Your task to perform on an android device: open wifi settings Image 0: 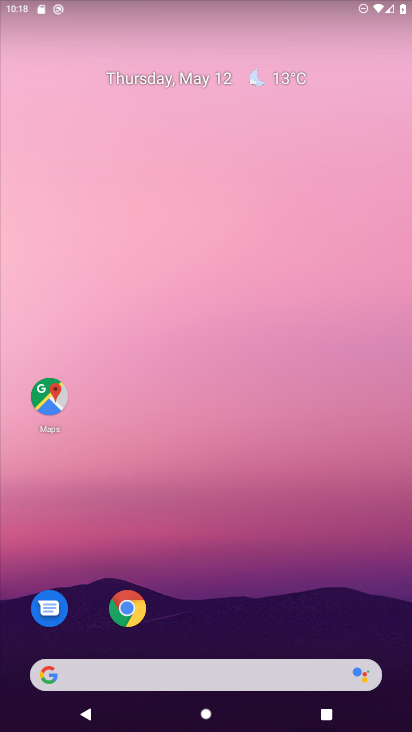
Step 0: drag from (219, 592) to (189, 87)
Your task to perform on an android device: open wifi settings Image 1: 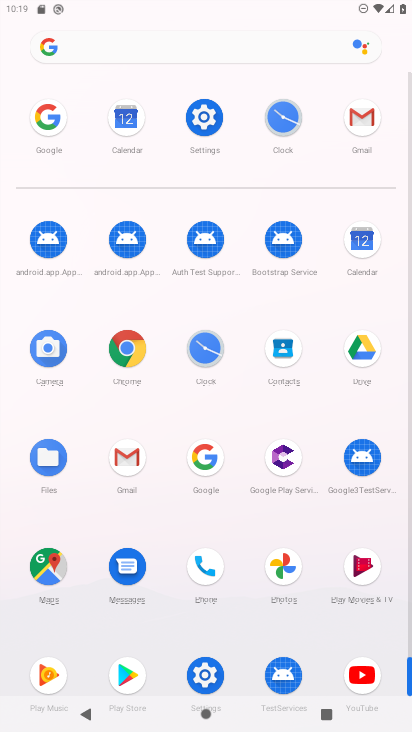
Step 1: click (196, 121)
Your task to perform on an android device: open wifi settings Image 2: 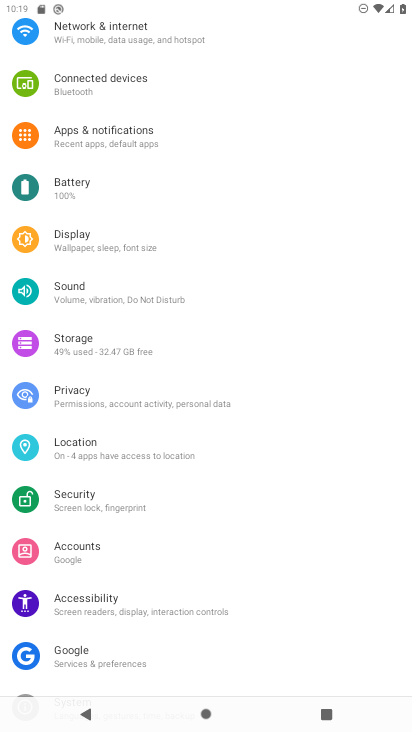
Step 2: click (93, 40)
Your task to perform on an android device: open wifi settings Image 3: 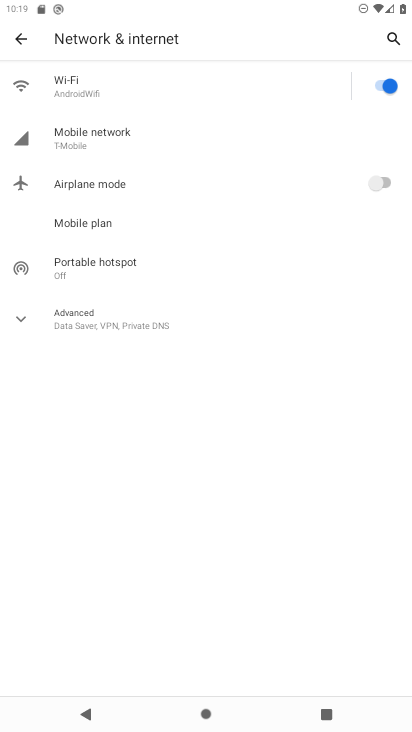
Step 3: click (128, 86)
Your task to perform on an android device: open wifi settings Image 4: 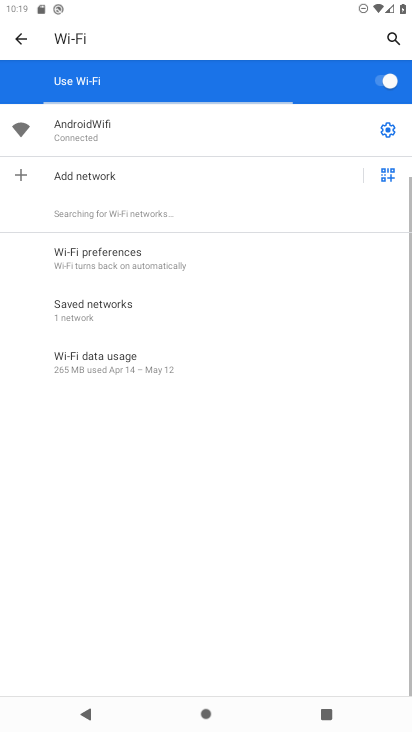
Step 4: click (377, 126)
Your task to perform on an android device: open wifi settings Image 5: 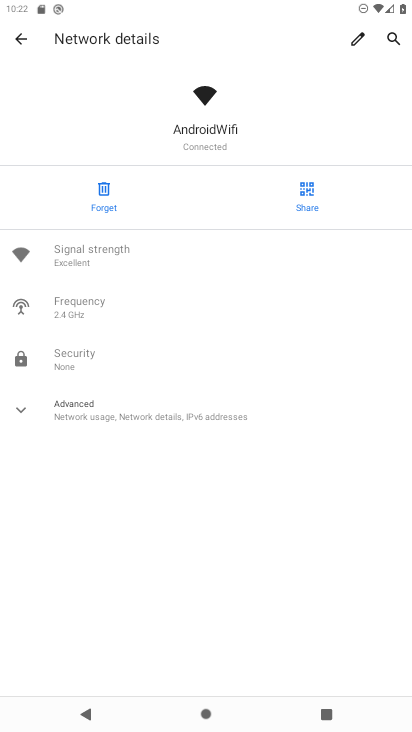
Step 5: task complete